Your task to perform on an android device: turn on javascript in the chrome app Image 0: 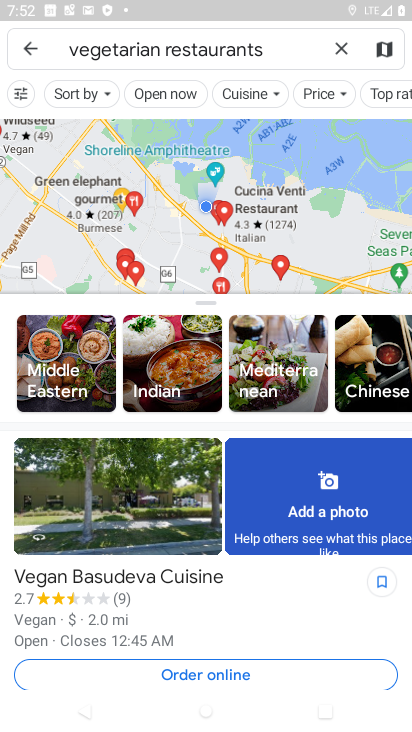
Step 0: press home button
Your task to perform on an android device: turn on javascript in the chrome app Image 1: 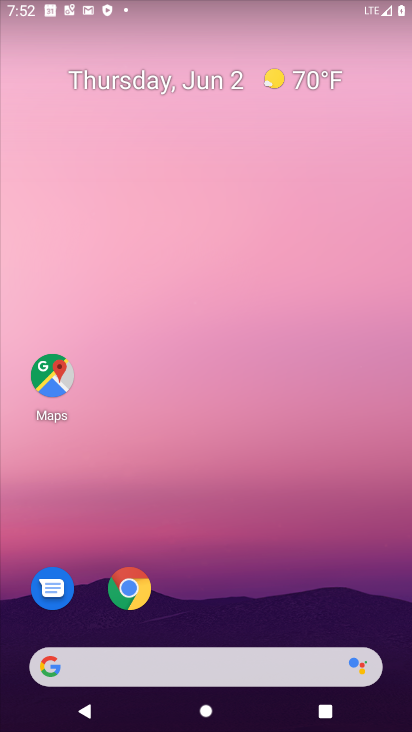
Step 1: click (127, 579)
Your task to perform on an android device: turn on javascript in the chrome app Image 2: 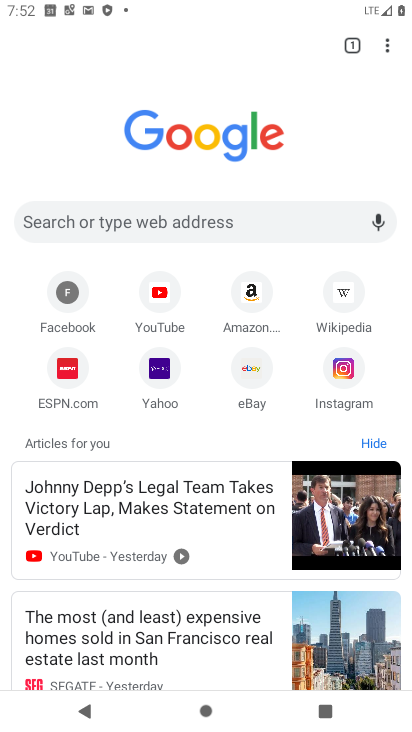
Step 2: click (385, 40)
Your task to perform on an android device: turn on javascript in the chrome app Image 3: 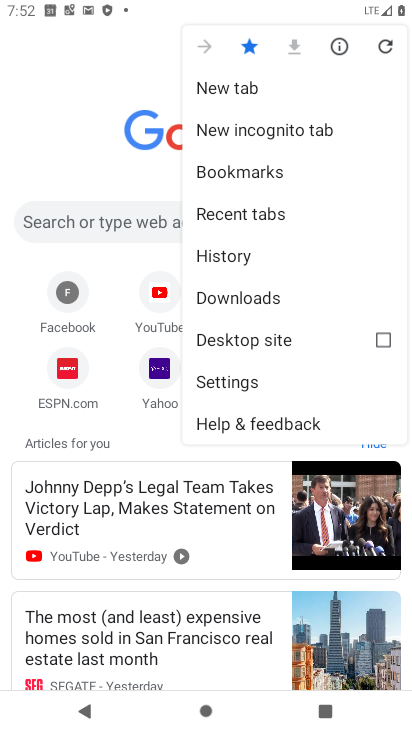
Step 3: click (228, 375)
Your task to perform on an android device: turn on javascript in the chrome app Image 4: 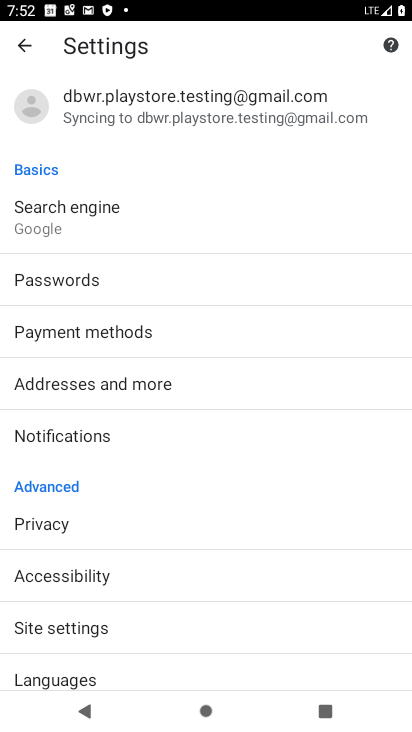
Step 4: click (100, 626)
Your task to perform on an android device: turn on javascript in the chrome app Image 5: 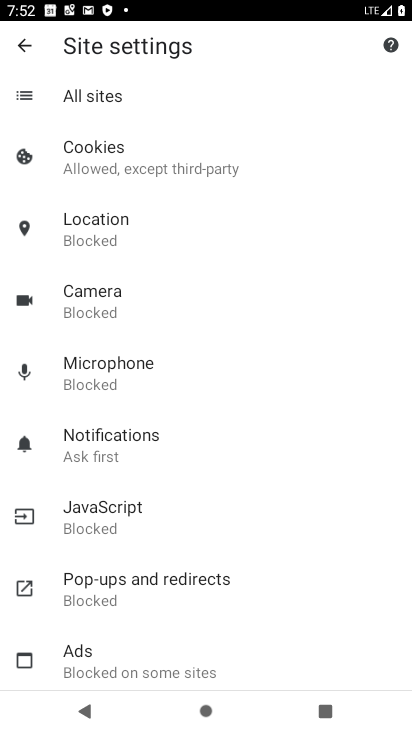
Step 5: click (110, 515)
Your task to perform on an android device: turn on javascript in the chrome app Image 6: 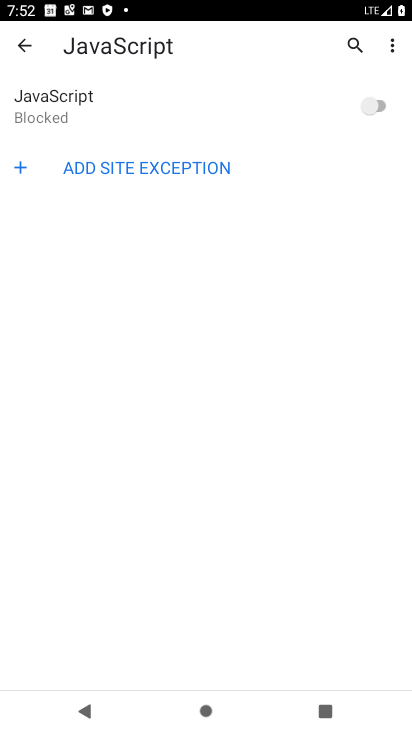
Step 6: click (351, 110)
Your task to perform on an android device: turn on javascript in the chrome app Image 7: 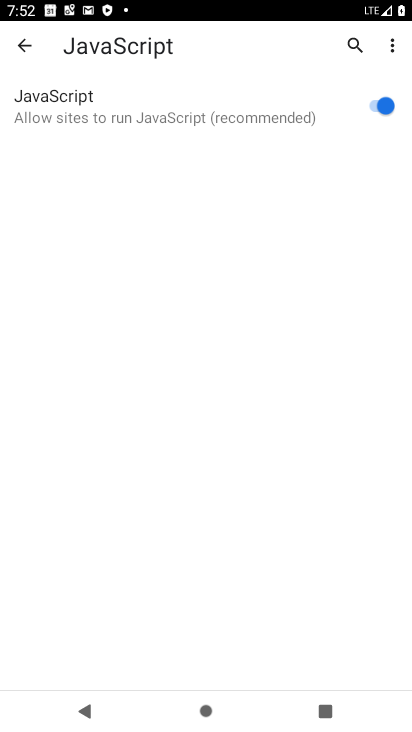
Step 7: task complete